Your task to perform on an android device: empty trash in google photos Image 0: 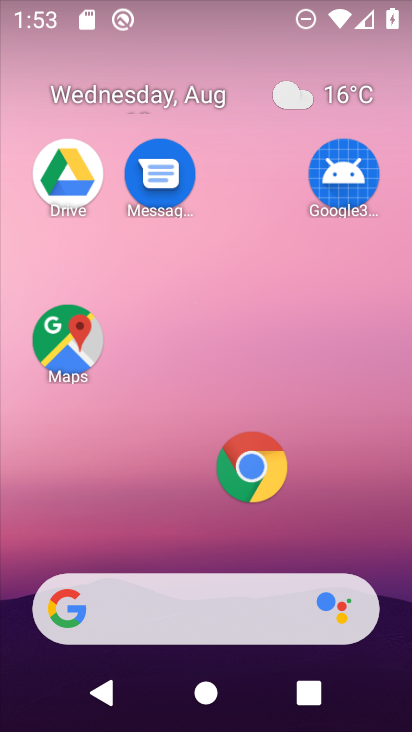
Step 0: drag from (158, 534) to (155, 23)
Your task to perform on an android device: empty trash in google photos Image 1: 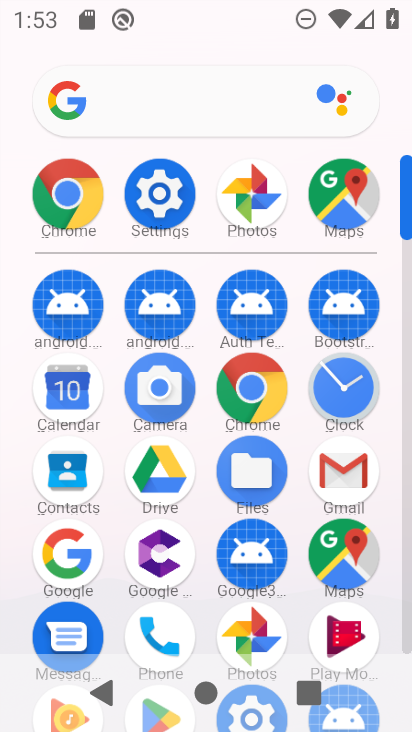
Step 1: click (249, 200)
Your task to perform on an android device: empty trash in google photos Image 2: 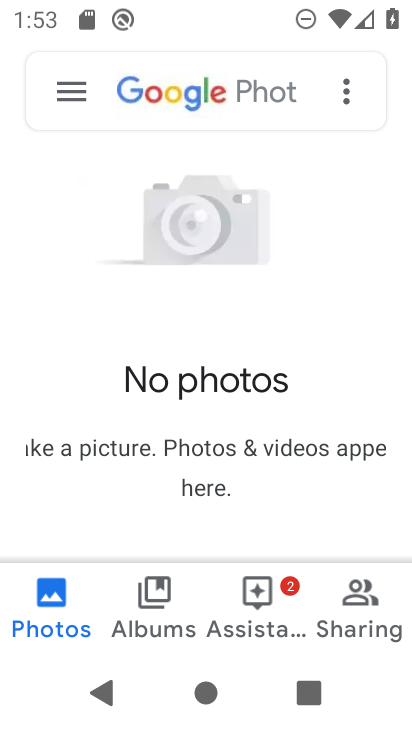
Step 2: click (56, 98)
Your task to perform on an android device: empty trash in google photos Image 3: 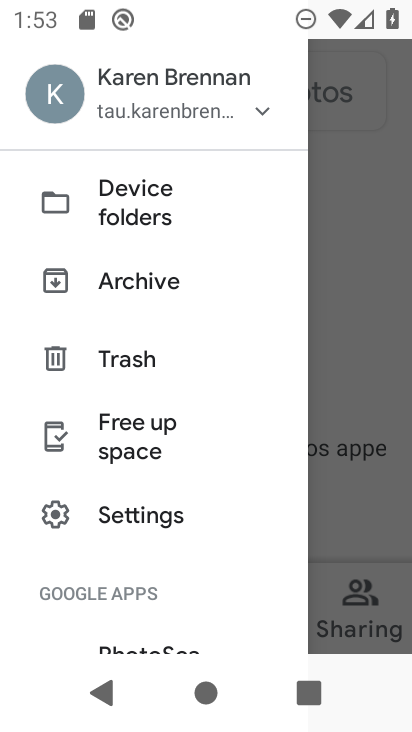
Step 3: click (140, 370)
Your task to perform on an android device: empty trash in google photos Image 4: 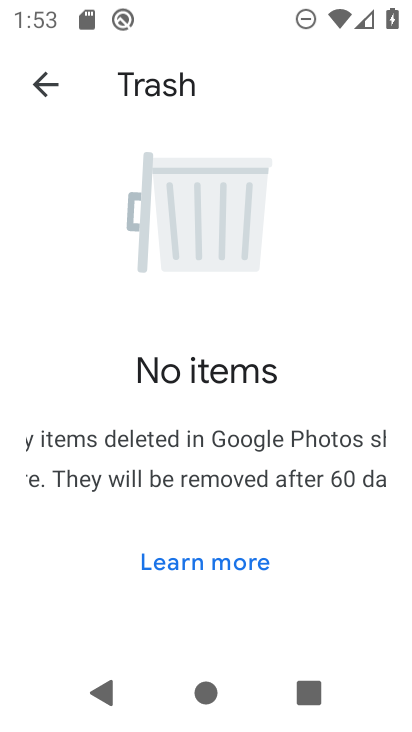
Step 4: task complete